Your task to perform on an android device: see tabs open on other devices in the chrome app Image 0: 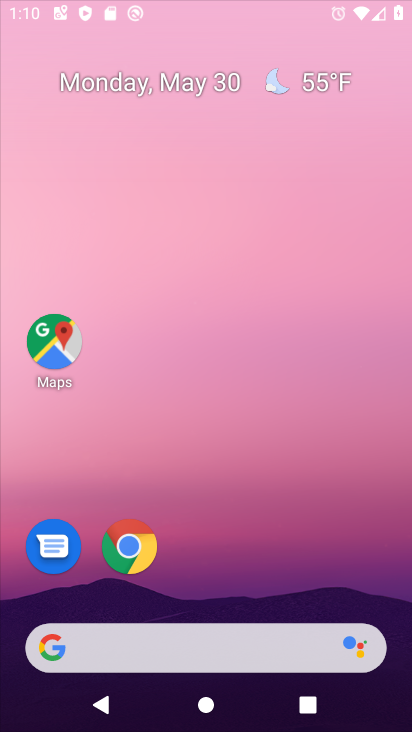
Step 0: press home button
Your task to perform on an android device: see tabs open on other devices in the chrome app Image 1: 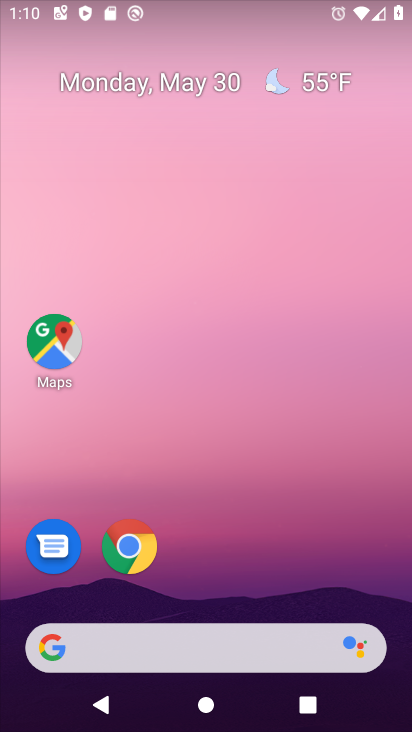
Step 1: click (128, 548)
Your task to perform on an android device: see tabs open on other devices in the chrome app Image 2: 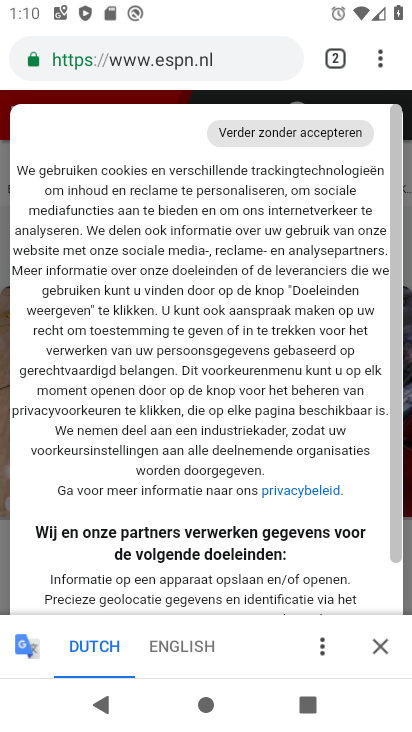
Step 2: task complete